Your task to perform on an android device: delete the emails in spam in the gmail app Image 0: 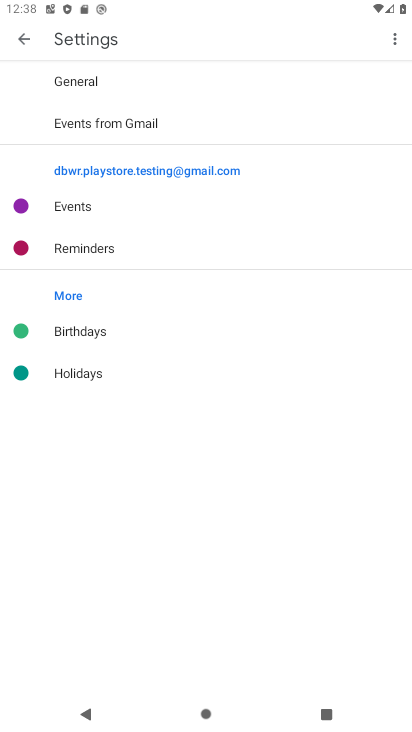
Step 0: press home button
Your task to perform on an android device: delete the emails in spam in the gmail app Image 1: 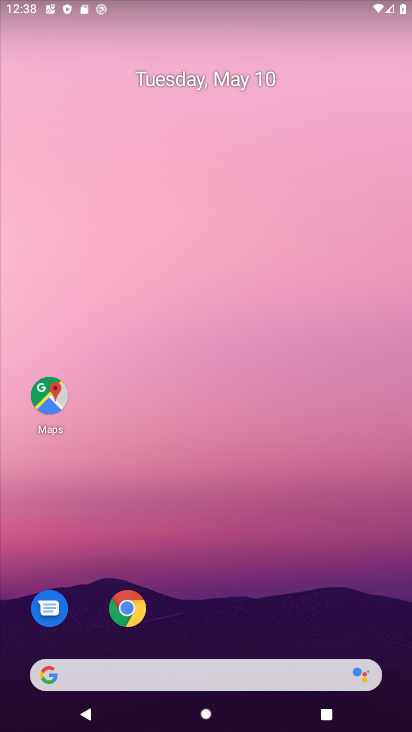
Step 1: drag from (214, 603) to (234, 39)
Your task to perform on an android device: delete the emails in spam in the gmail app Image 2: 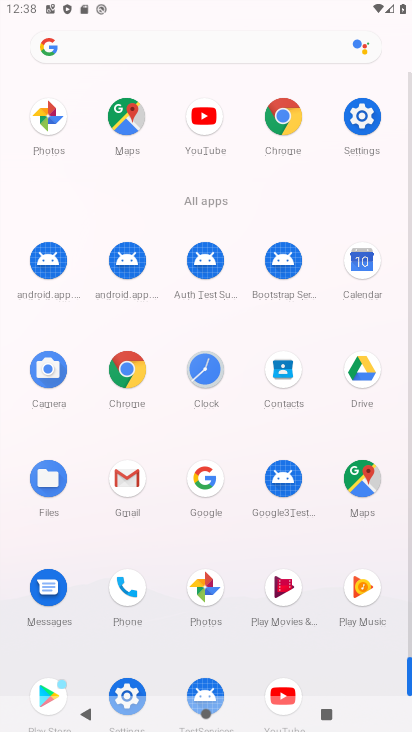
Step 2: click (114, 485)
Your task to perform on an android device: delete the emails in spam in the gmail app Image 3: 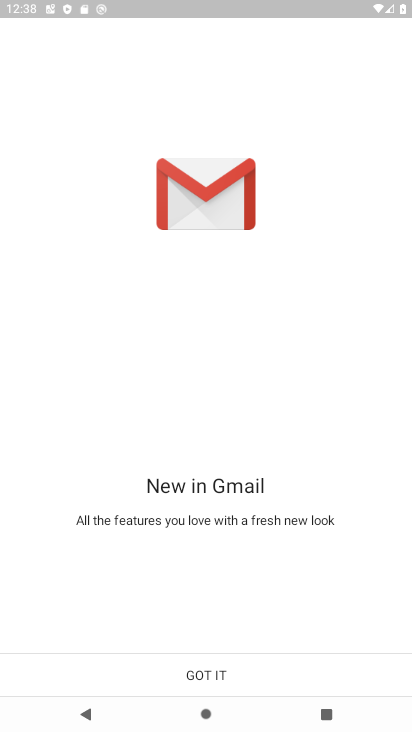
Step 3: click (204, 684)
Your task to perform on an android device: delete the emails in spam in the gmail app Image 4: 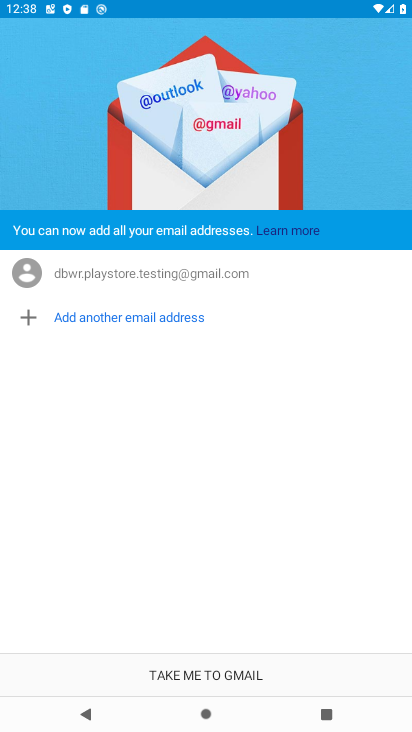
Step 4: click (197, 671)
Your task to perform on an android device: delete the emails in spam in the gmail app Image 5: 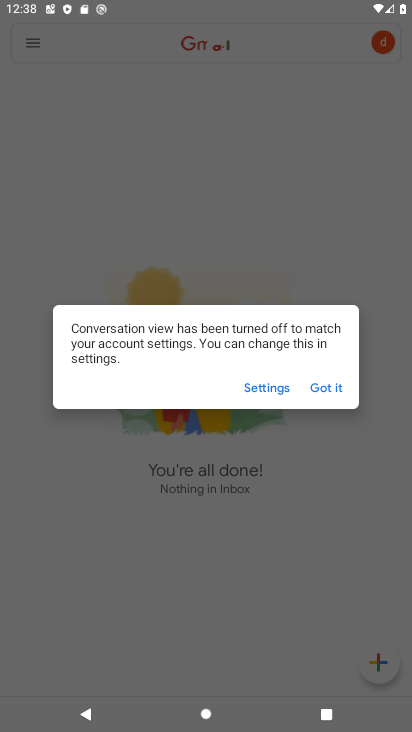
Step 5: click (315, 391)
Your task to perform on an android device: delete the emails in spam in the gmail app Image 6: 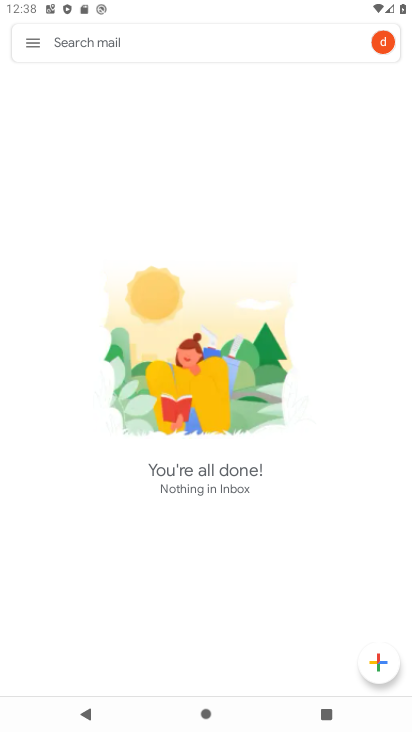
Step 6: click (20, 43)
Your task to perform on an android device: delete the emails in spam in the gmail app Image 7: 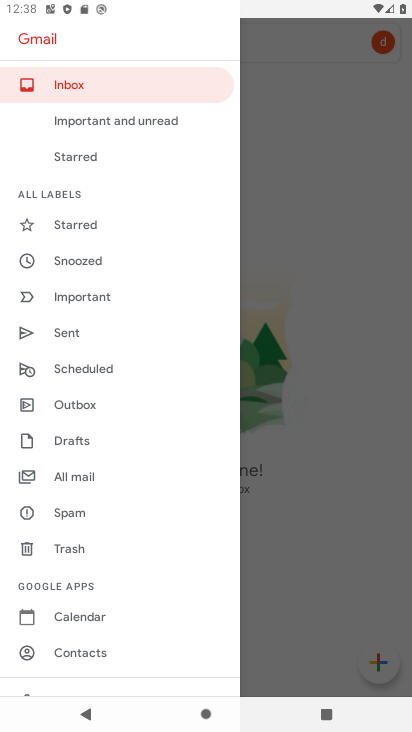
Step 7: drag from (90, 531) to (11, 514)
Your task to perform on an android device: delete the emails in spam in the gmail app Image 8: 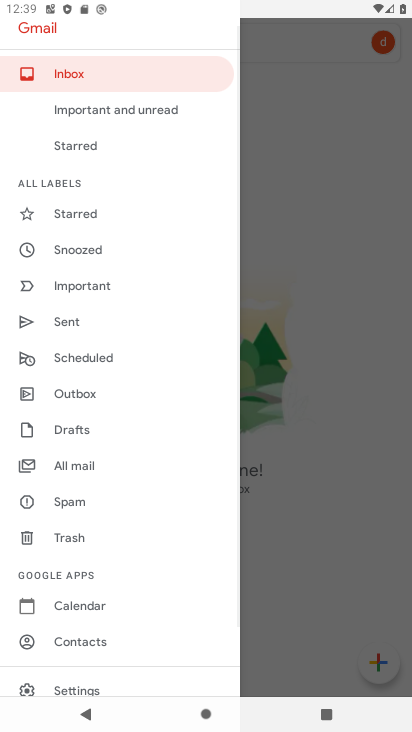
Step 8: click (58, 504)
Your task to perform on an android device: delete the emails in spam in the gmail app Image 9: 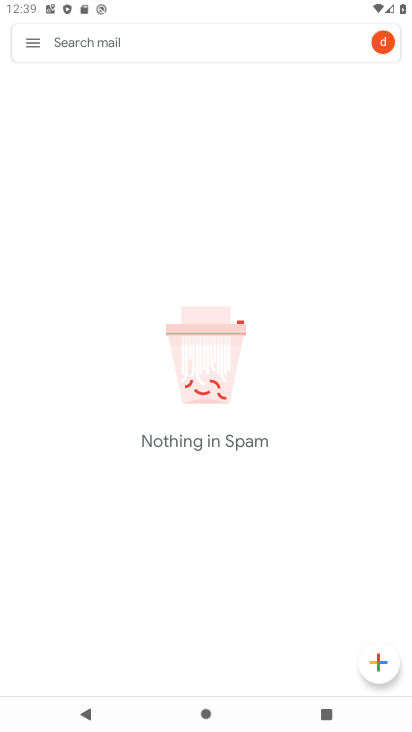
Step 9: task complete